Your task to perform on an android device: Do I have any events this weekend? Image 0: 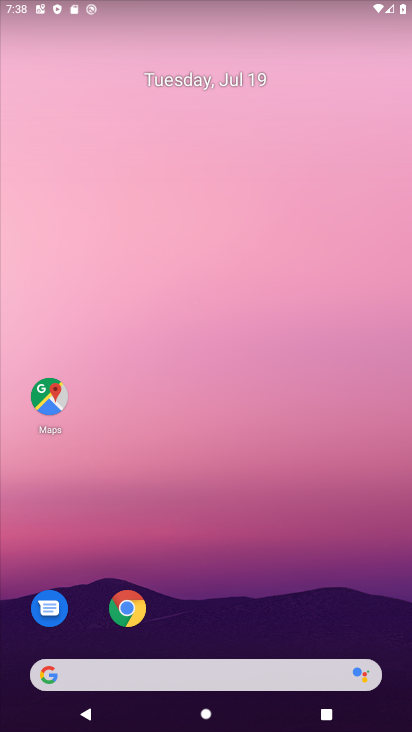
Step 0: drag from (181, 670) to (293, 224)
Your task to perform on an android device: Do I have any events this weekend? Image 1: 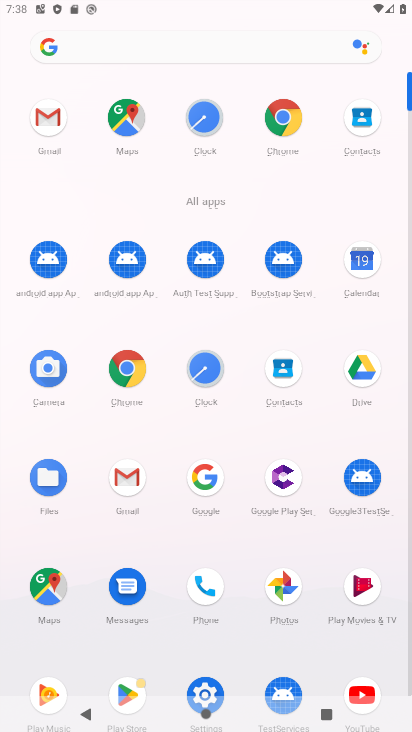
Step 1: click (358, 259)
Your task to perform on an android device: Do I have any events this weekend? Image 2: 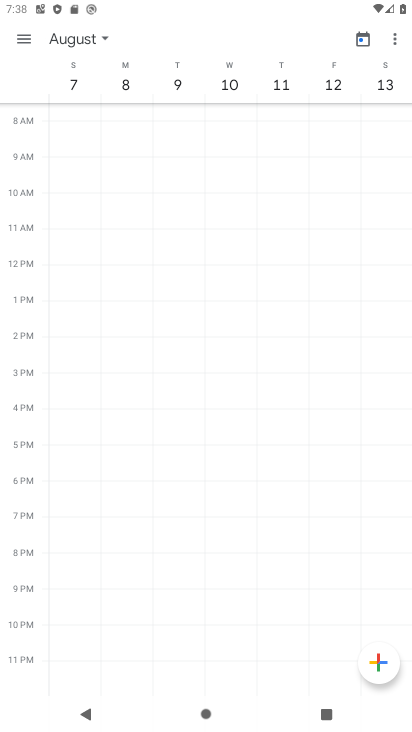
Step 2: click (60, 35)
Your task to perform on an android device: Do I have any events this weekend? Image 3: 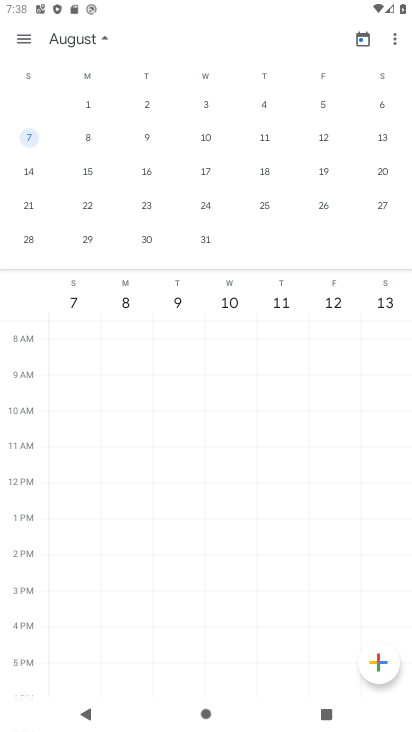
Step 3: drag from (90, 183) to (308, 238)
Your task to perform on an android device: Do I have any events this weekend? Image 4: 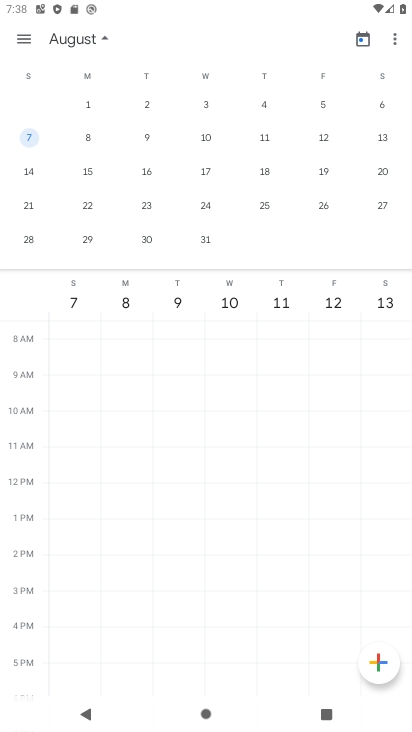
Step 4: drag from (53, 136) to (398, 221)
Your task to perform on an android device: Do I have any events this weekend? Image 5: 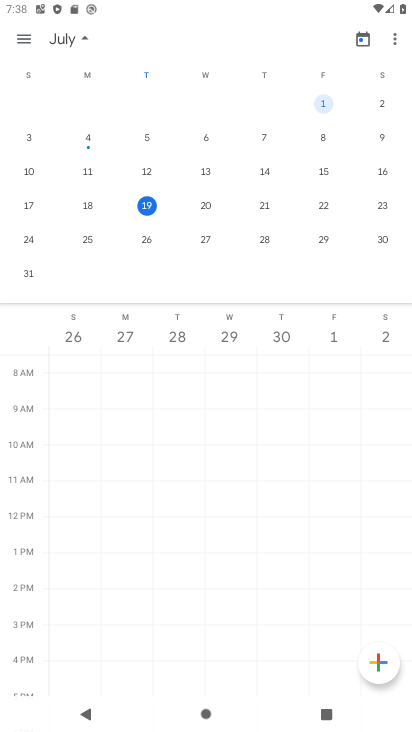
Step 5: click (384, 205)
Your task to perform on an android device: Do I have any events this weekend? Image 6: 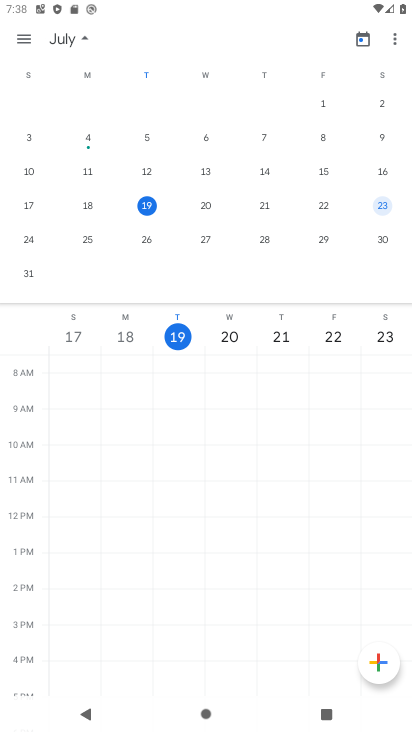
Step 6: click (27, 42)
Your task to perform on an android device: Do I have any events this weekend? Image 7: 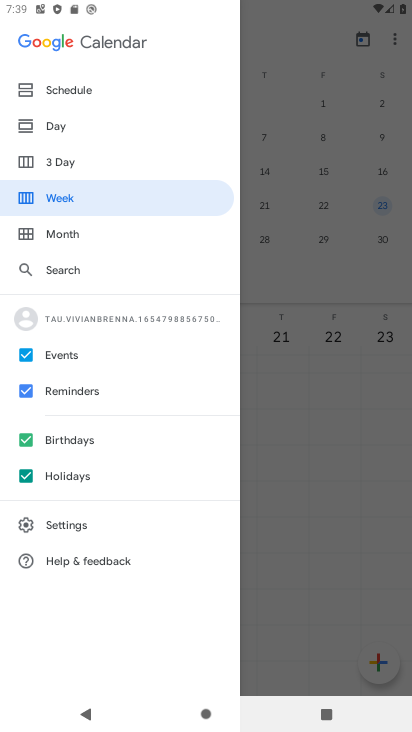
Step 7: click (55, 128)
Your task to perform on an android device: Do I have any events this weekend? Image 8: 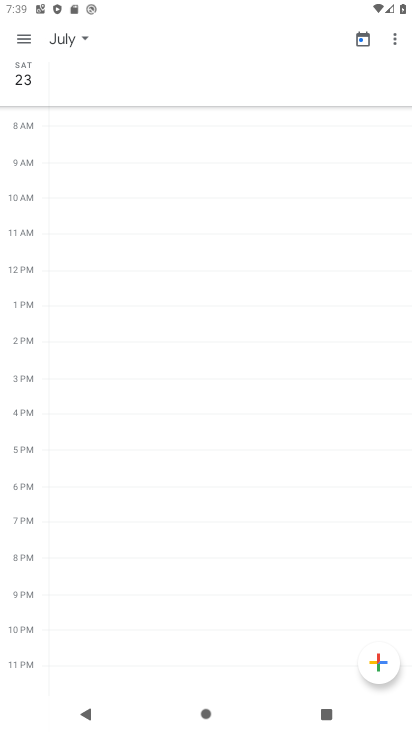
Step 8: click (33, 43)
Your task to perform on an android device: Do I have any events this weekend? Image 9: 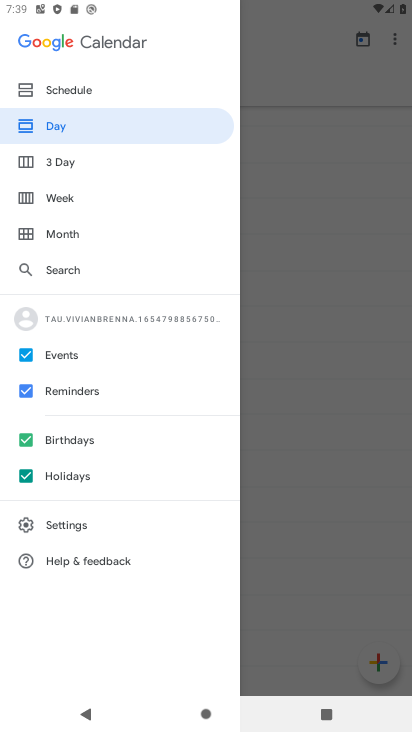
Step 9: click (77, 85)
Your task to perform on an android device: Do I have any events this weekend? Image 10: 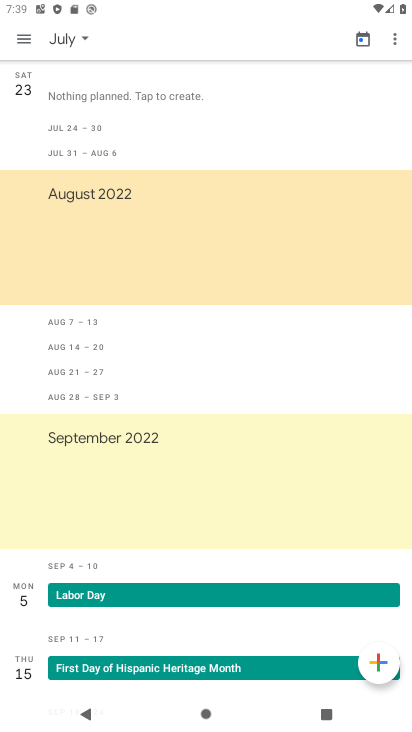
Step 10: task complete